Your task to perform on an android device: What's on my calendar tomorrow? Image 0: 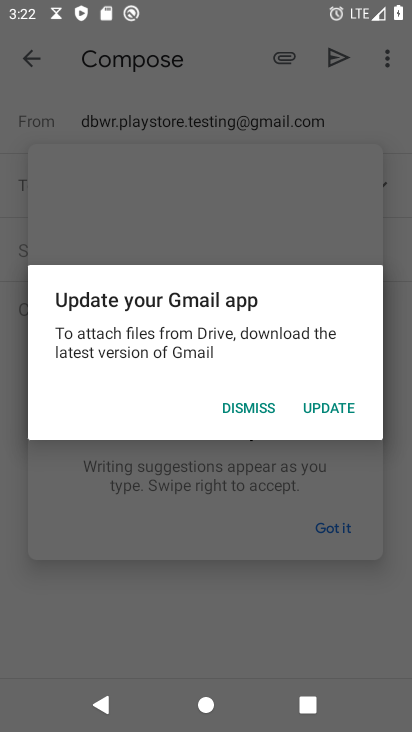
Step 0: press home button
Your task to perform on an android device: What's on my calendar tomorrow? Image 1: 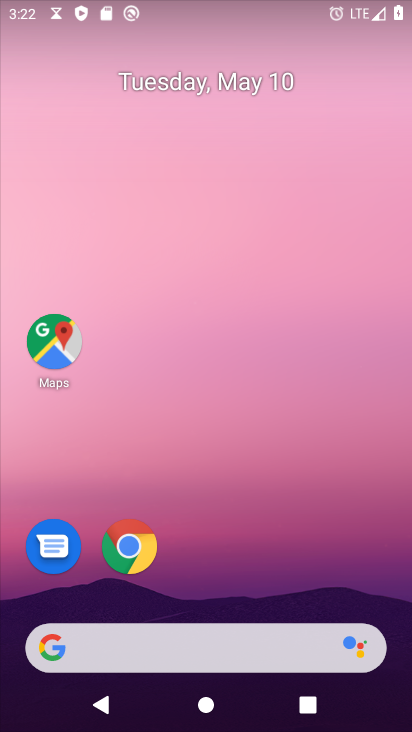
Step 1: drag from (233, 571) to (356, 9)
Your task to perform on an android device: What's on my calendar tomorrow? Image 2: 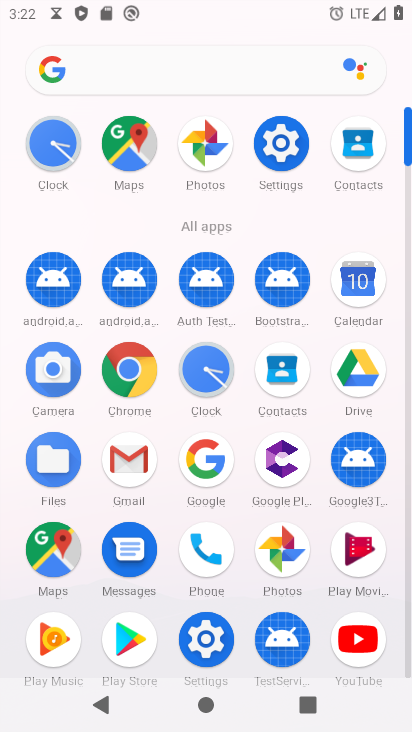
Step 2: click (352, 298)
Your task to perform on an android device: What's on my calendar tomorrow? Image 3: 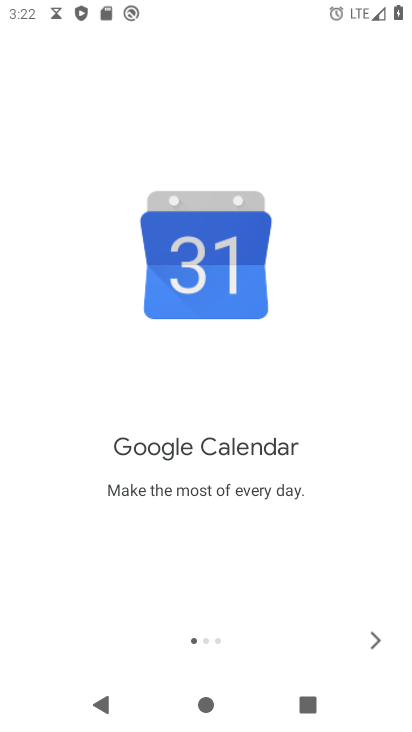
Step 3: click (373, 650)
Your task to perform on an android device: What's on my calendar tomorrow? Image 4: 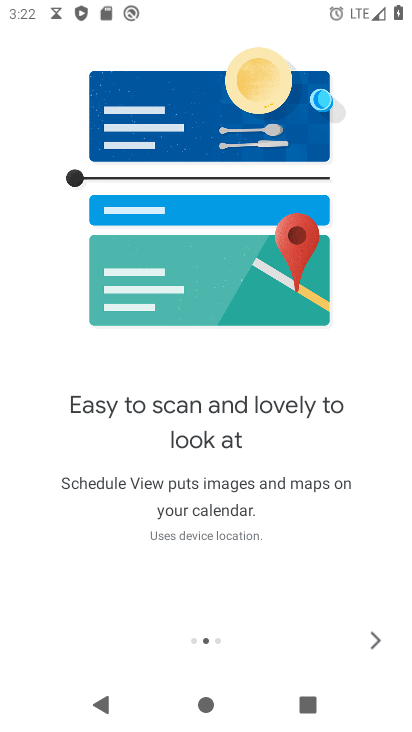
Step 4: click (373, 650)
Your task to perform on an android device: What's on my calendar tomorrow? Image 5: 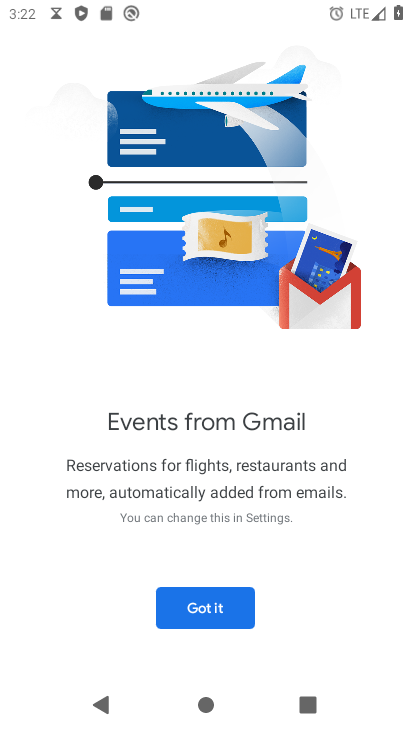
Step 5: click (222, 615)
Your task to perform on an android device: What's on my calendar tomorrow? Image 6: 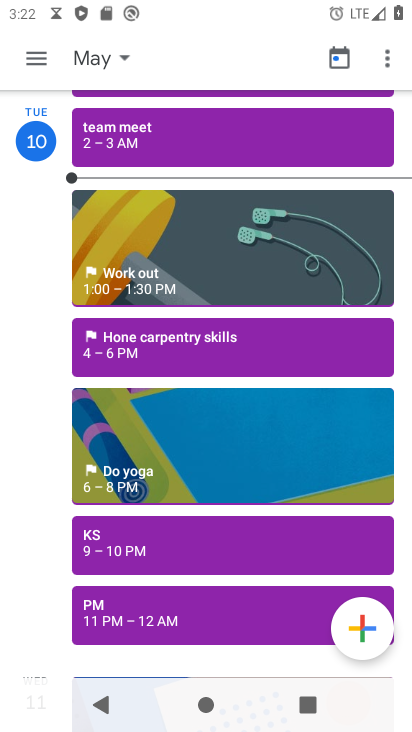
Step 6: click (35, 59)
Your task to perform on an android device: What's on my calendar tomorrow? Image 7: 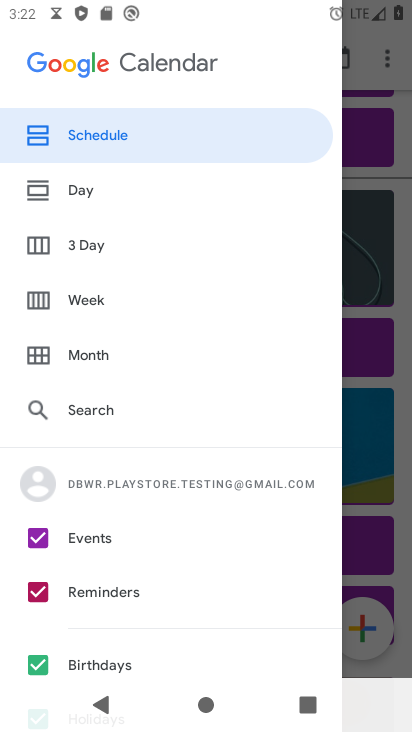
Step 7: click (111, 202)
Your task to perform on an android device: What's on my calendar tomorrow? Image 8: 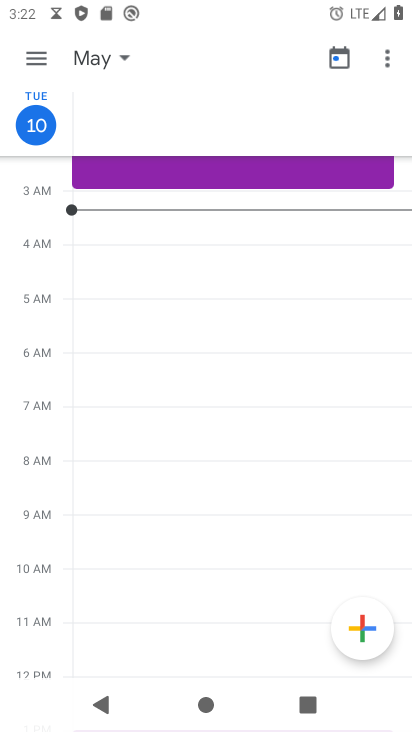
Step 8: task complete